Your task to perform on an android device: Search for hotels in Miami Image 0: 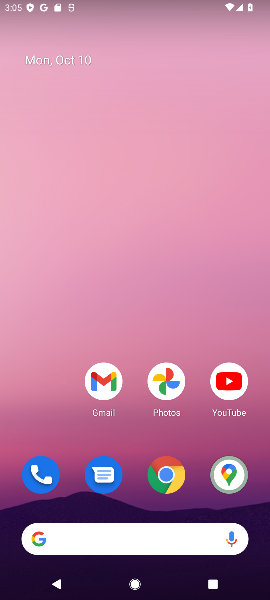
Step 0: drag from (151, 488) to (189, 107)
Your task to perform on an android device: Search for hotels in Miami Image 1: 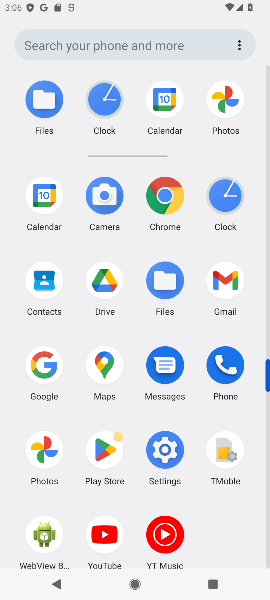
Step 1: click (41, 379)
Your task to perform on an android device: Search for hotels in Miami Image 2: 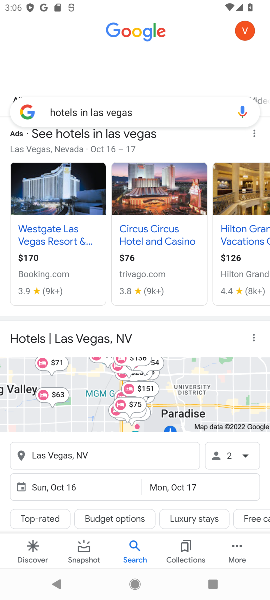
Step 2: click (168, 112)
Your task to perform on an android device: Search for hotels in Miami Image 3: 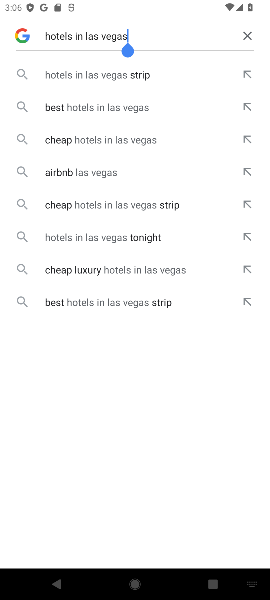
Step 3: click (247, 37)
Your task to perform on an android device: Search for hotels in Miami Image 4: 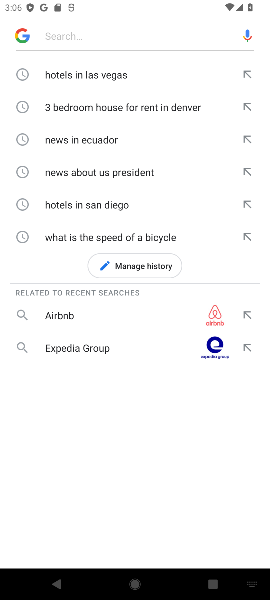
Step 4: type "hotels in Miami"
Your task to perform on an android device: Search for hotels in Miami Image 5: 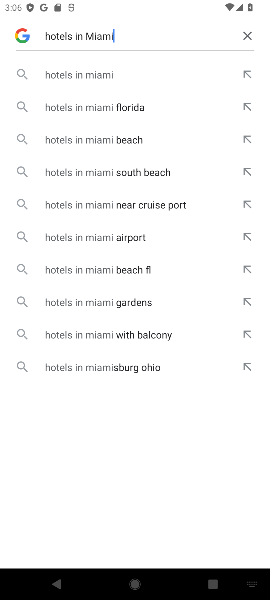
Step 5: click (87, 75)
Your task to perform on an android device: Search for hotels in Miami Image 6: 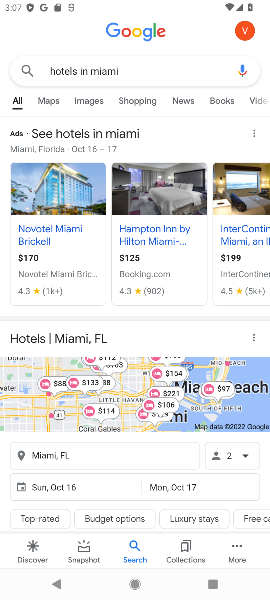
Step 6: task complete